Your task to perform on an android device: visit the assistant section in the google photos Image 0: 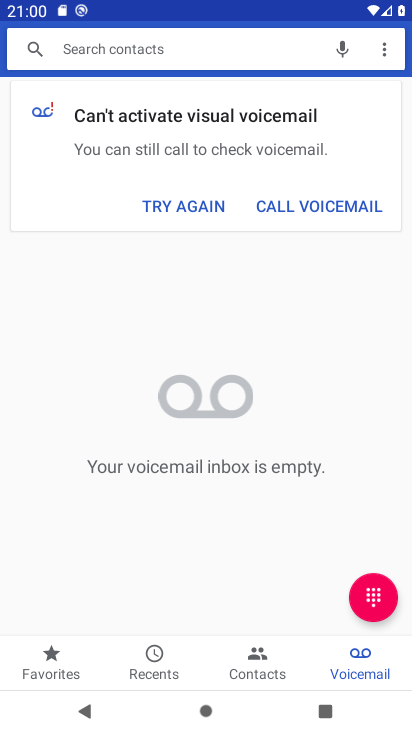
Step 0: press home button
Your task to perform on an android device: visit the assistant section in the google photos Image 1: 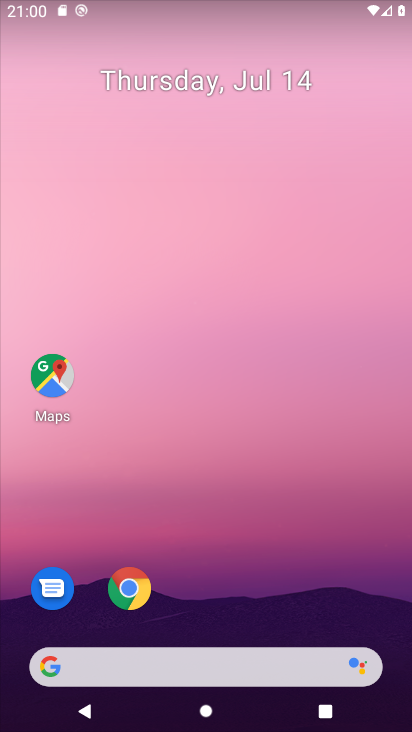
Step 1: drag from (309, 481) to (322, 74)
Your task to perform on an android device: visit the assistant section in the google photos Image 2: 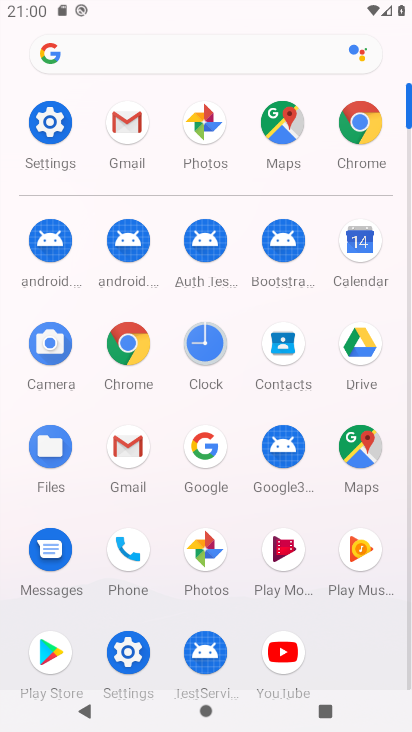
Step 2: click (206, 542)
Your task to perform on an android device: visit the assistant section in the google photos Image 3: 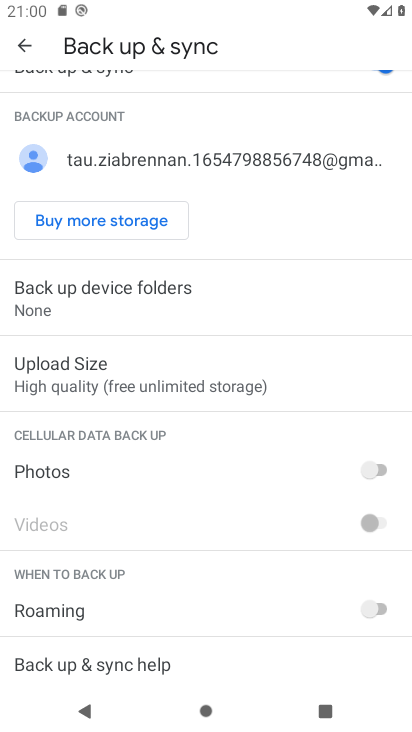
Step 3: press back button
Your task to perform on an android device: visit the assistant section in the google photos Image 4: 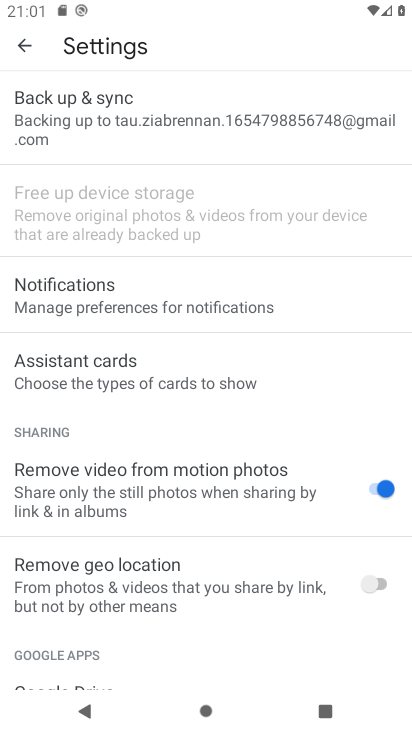
Step 4: press back button
Your task to perform on an android device: visit the assistant section in the google photos Image 5: 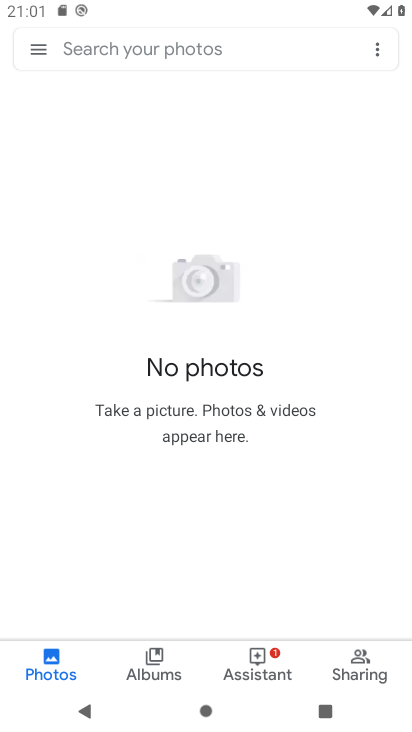
Step 5: click (256, 657)
Your task to perform on an android device: visit the assistant section in the google photos Image 6: 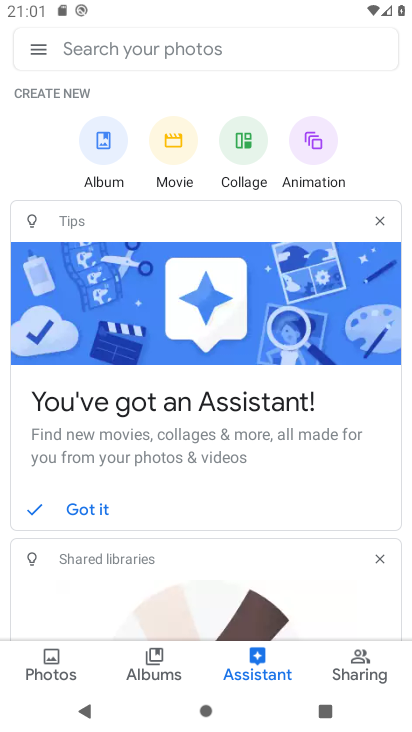
Step 6: task complete